Your task to perform on an android device: Go to wifi settings Image 0: 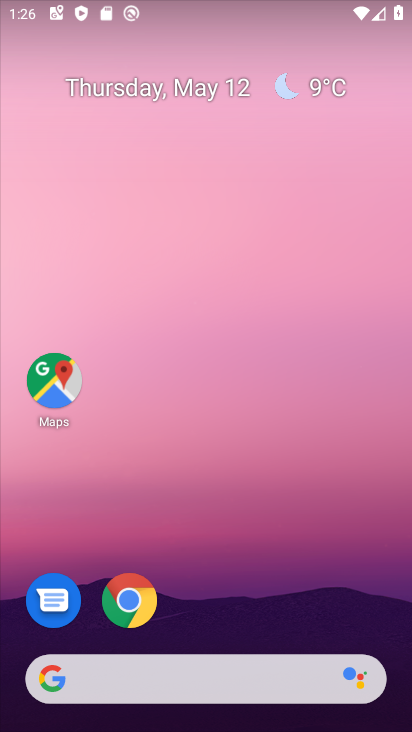
Step 0: press home button
Your task to perform on an android device: Go to wifi settings Image 1: 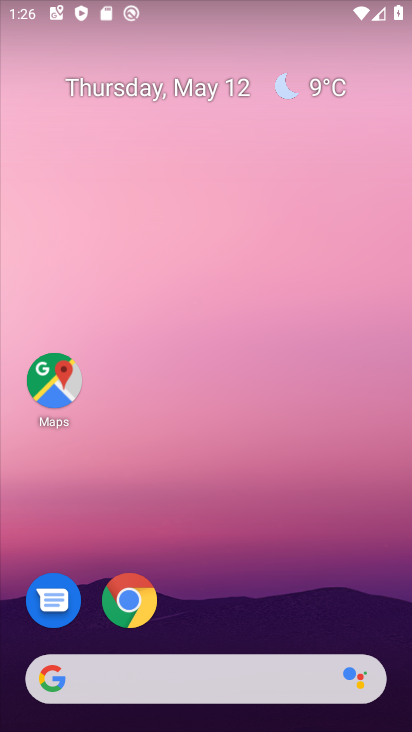
Step 1: drag from (148, 8) to (244, 677)
Your task to perform on an android device: Go to wifi settings Image 2: 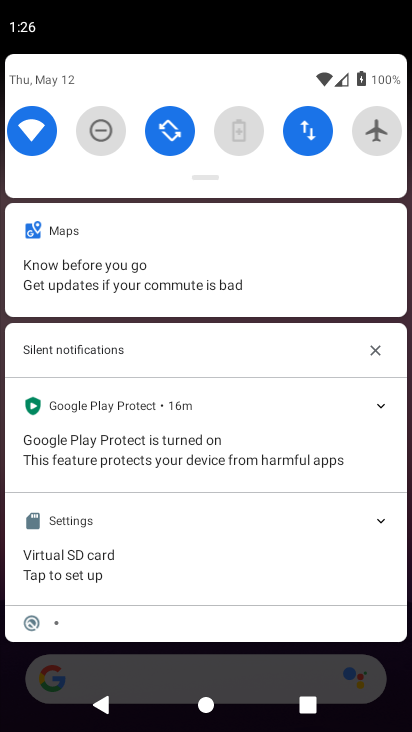
Step 2: click (30, 138)
Your task to perform on an android device: Go to wifi settings Image 3: 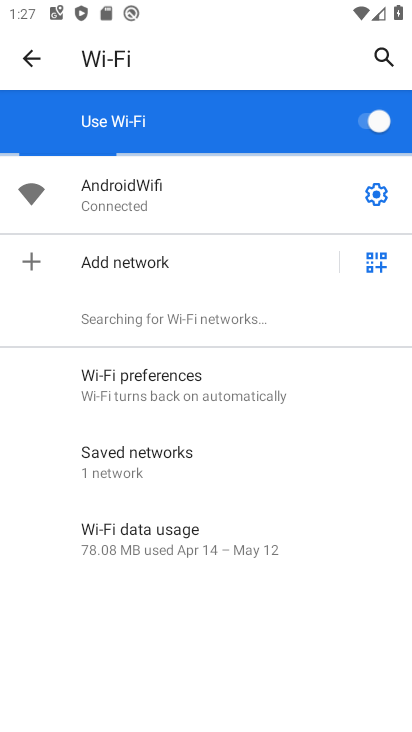
Step 3: task complete